Your task to perform on an android device: Play the last video I watched on Youtube Image 0: 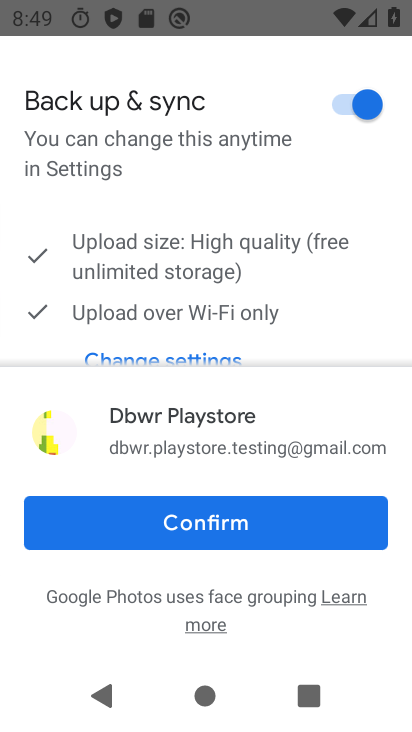
Step 0: press home button
Your task to perform on an android device: Play the last video I watched on Youtube Image 1: 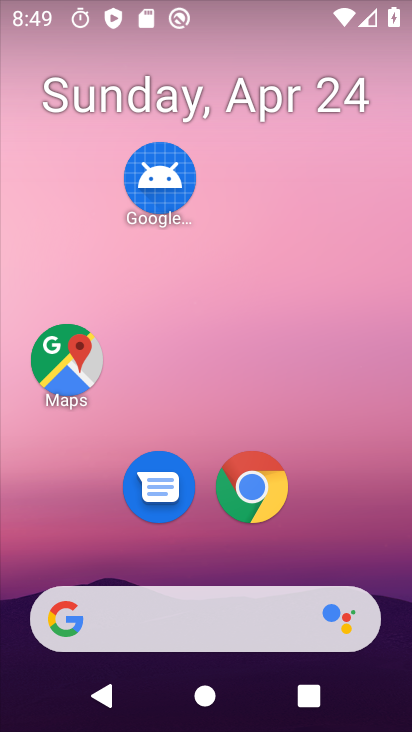
Step 1: drag from (341, 483) to (265, 77)
Your task to perform on an android device: Play the last video I watched on Youtube Image 2: 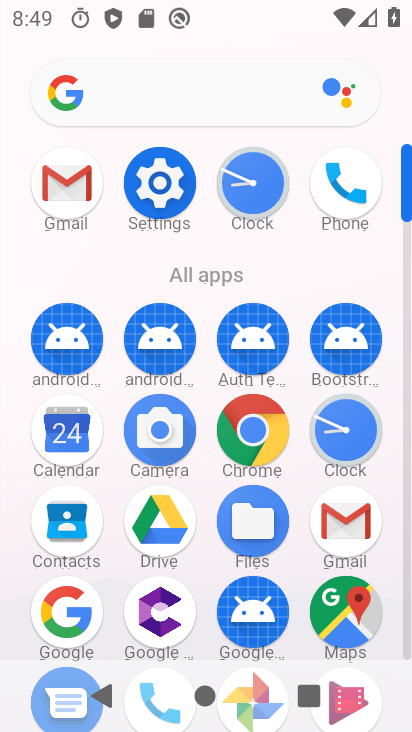
Step 2: drag from (305, 576) to (298, 240)
Your task to perform on an android device: Play the last video I watched on Youtube Image 3: 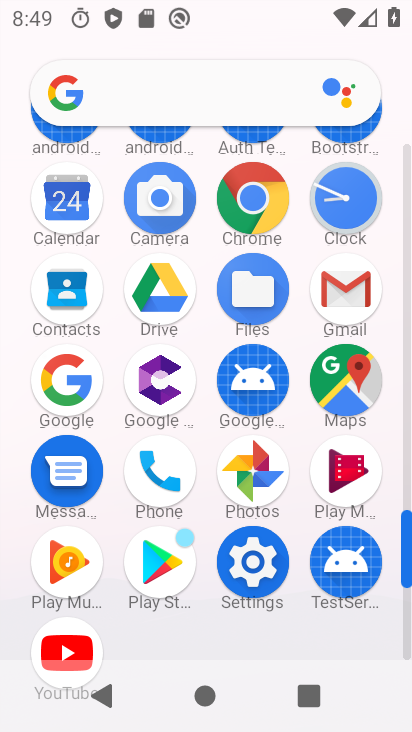
Step 3: click (62, 636)
Your task to perform on an android device: Play the last video I watched on Youtube Image 4: 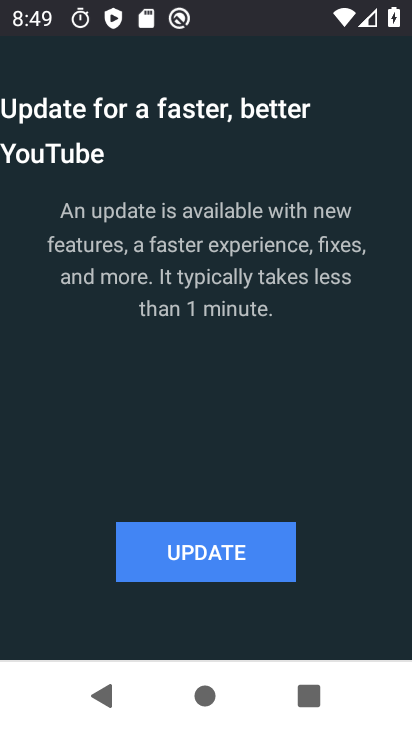
Step 4: click (200, 546)
Your task to perform on an android device: Play the last video I watched on Youtube Image 5: 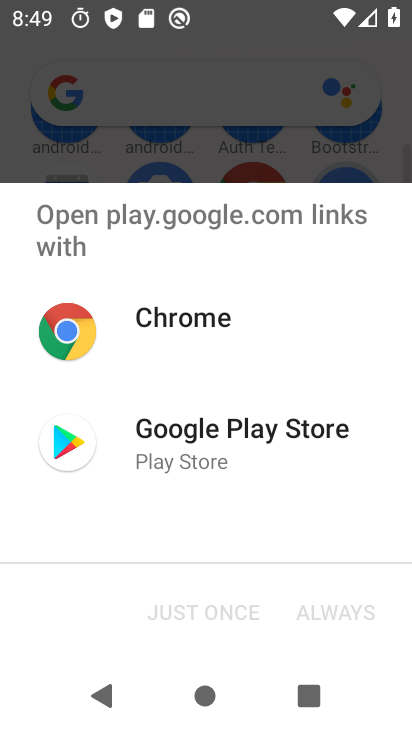
Step 5: click (228, 428)
Your task to perform on an android device: Play the last video I watched on Youtube Image 6: 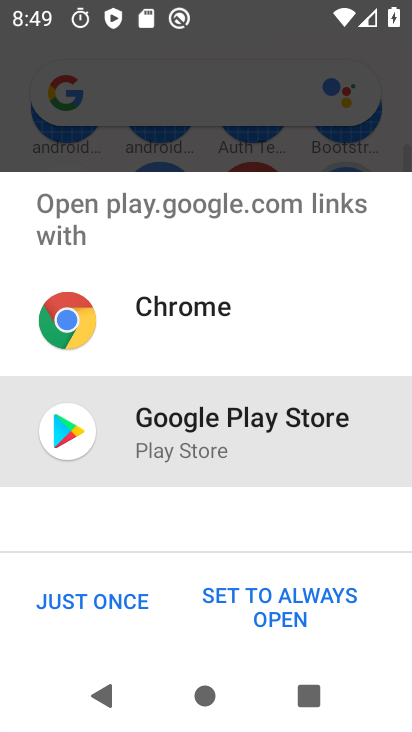
Step 6: click (105, 607)
Your task to perform on an android device: Play the last video I watched on Youtube Image 7: 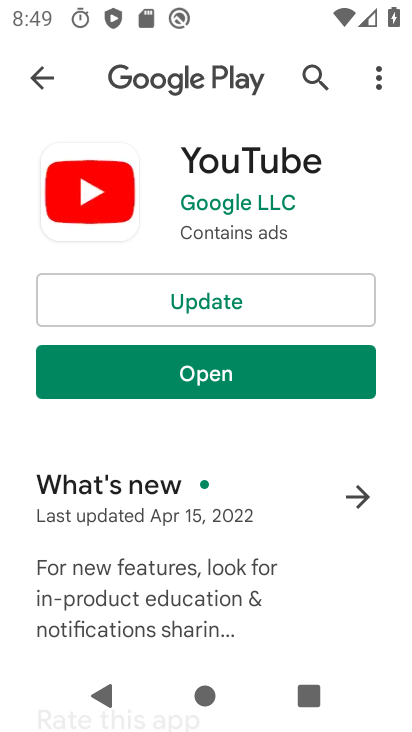
Step 7: click (217, 301)
Your task to perform on an android device: Play the last video I watched on Youtube Image 8: 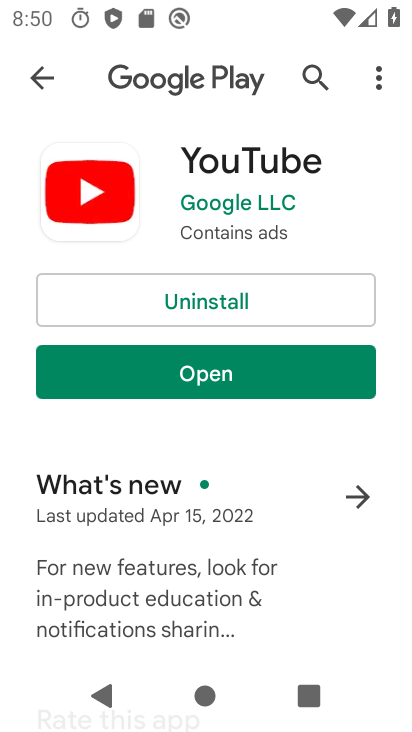
Step 8: click (199, 380)
Your task to perform on an android device: Play the last video I watched on Youtube Image 9: 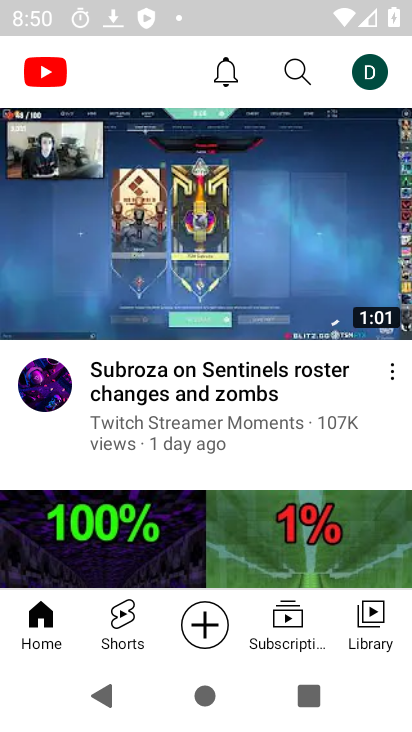
Step 9: click (379, 619)
Your task to perform on an android device: Play the last video I watched on Youtube Image 10: 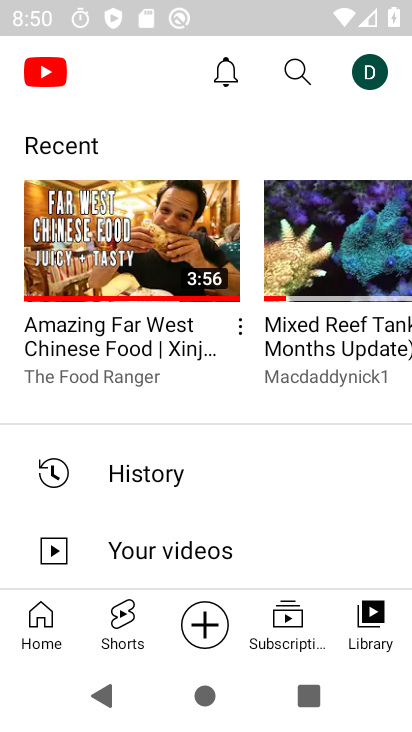
Step 10: click (43, 253)
Your task to perform on an android device: Play the last video I watched on Youtube Image 11: 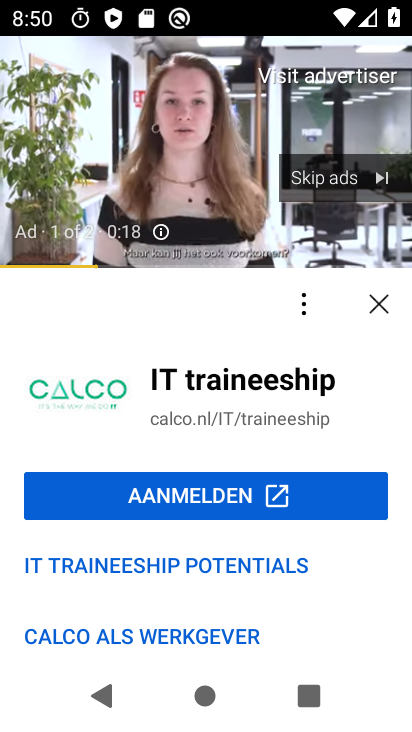
Step 11: click (341, 183)
Your task to perform on an android device: Play the last video I watched on Youtube Image 12: 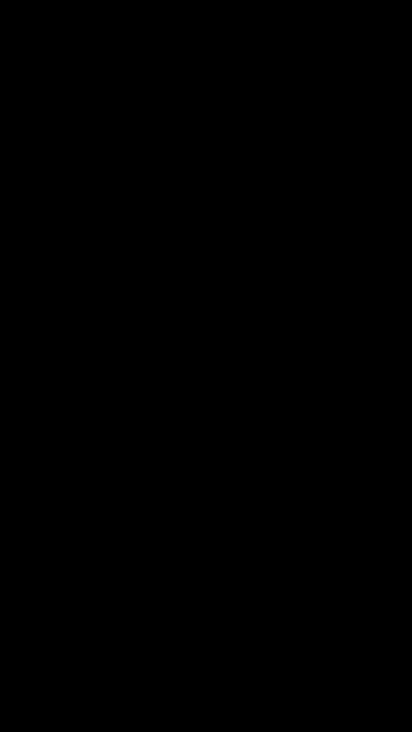
Step 12: task complete